Your task to perform on an android device: set the stopwatch Image 0: 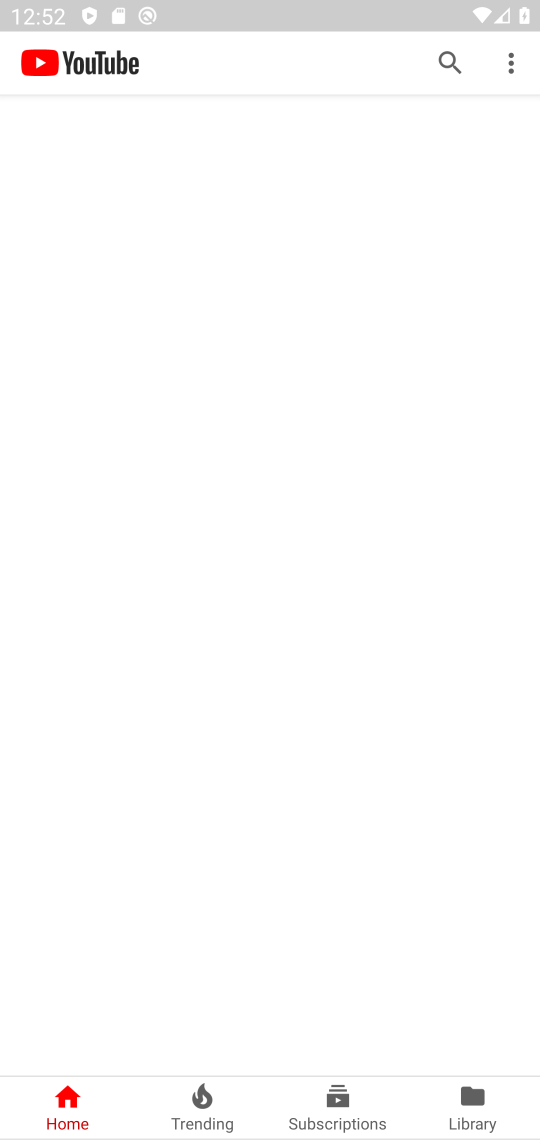
Step 0: press home button
Your task to perform on an android device: set the stopwatch Image 1: 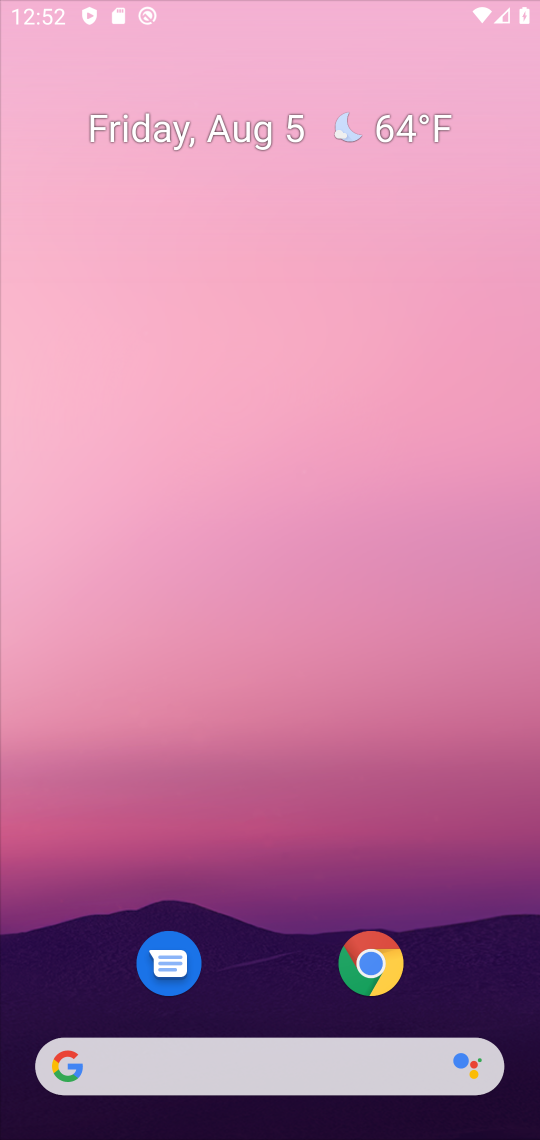
Step 1: drag from (304, 918) to (539, 62)
Your task to perform on an android device: set the stopwatch Image 2: 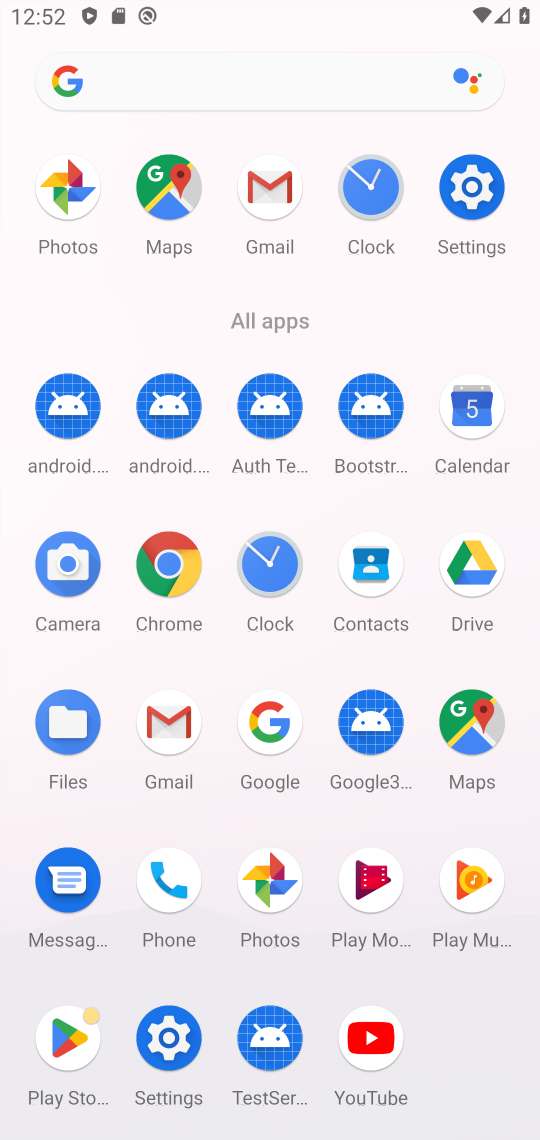
Step 2: click (272, 568)
Your task to perform on an android device: set the stopwatch Image 3: 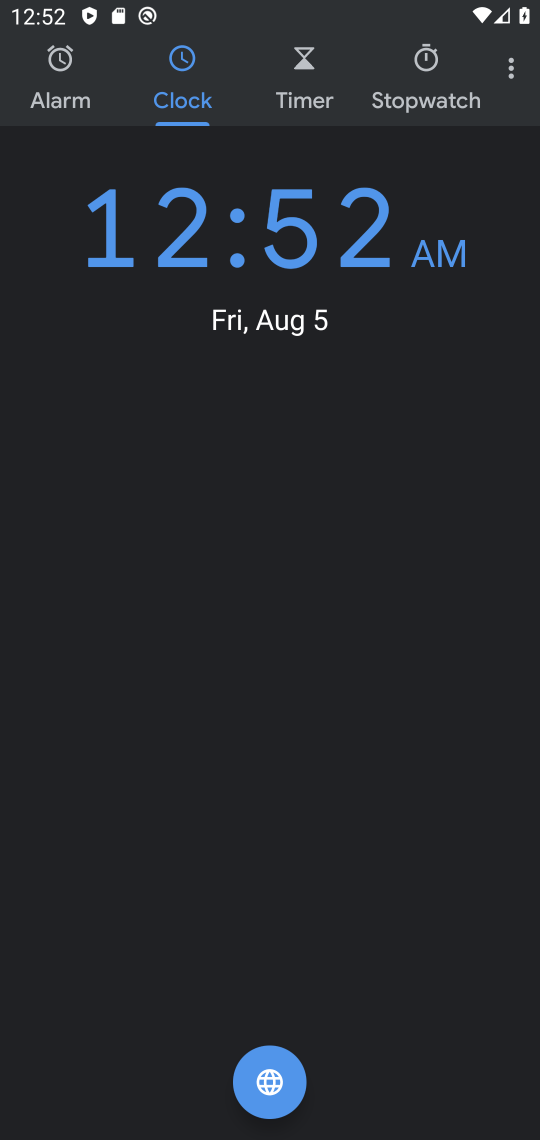
Step 3: click (436, 84)
Your task to perform on an android device: set the stopwatch Image 4: 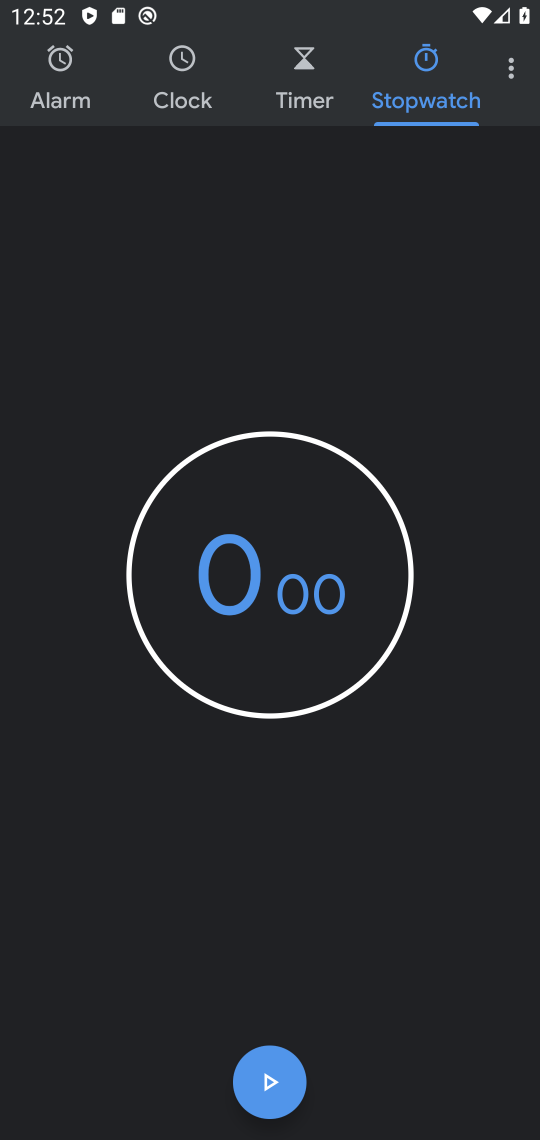
Step 4: click (284, 1079)
Your task to perform on an android device: set the stopwatch Image 5: 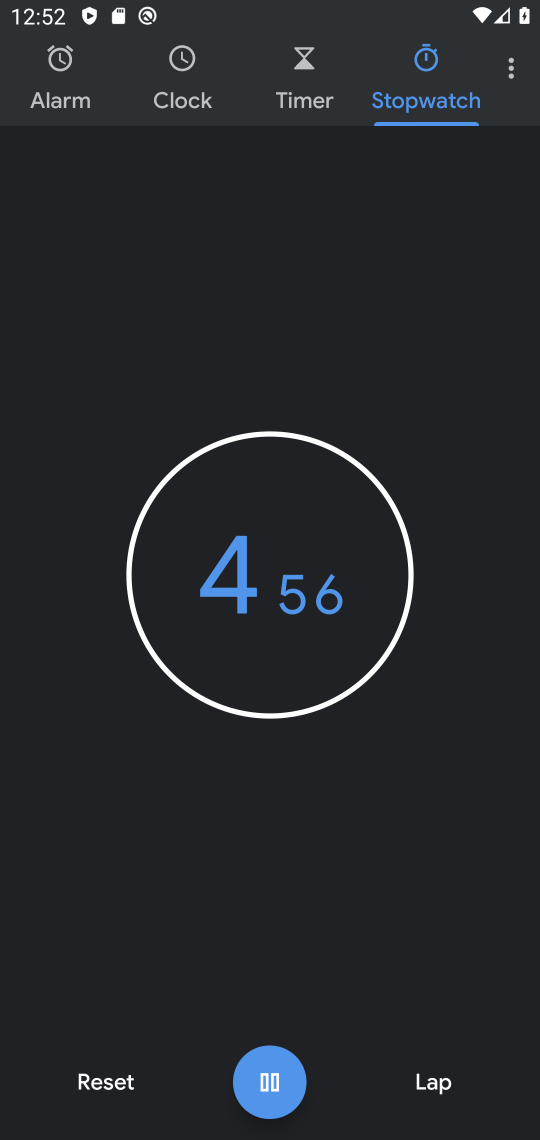
Step 5: task complete